Your task to perform on an android device: Is it going to rain today? Image 0: 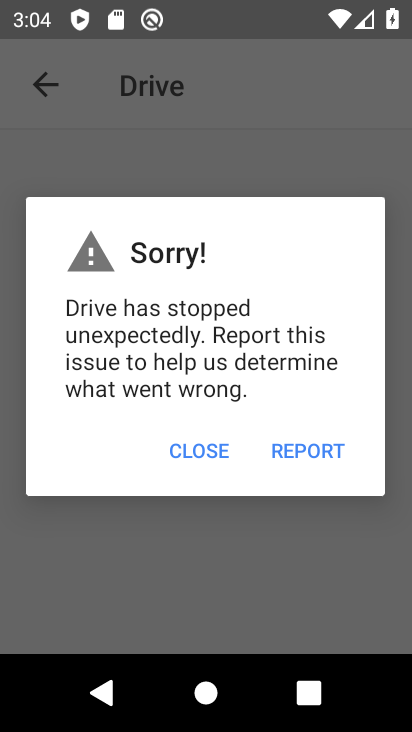
Step 0: press home button
Your task to perform on an android device: Is it going to rain today? Image 1: 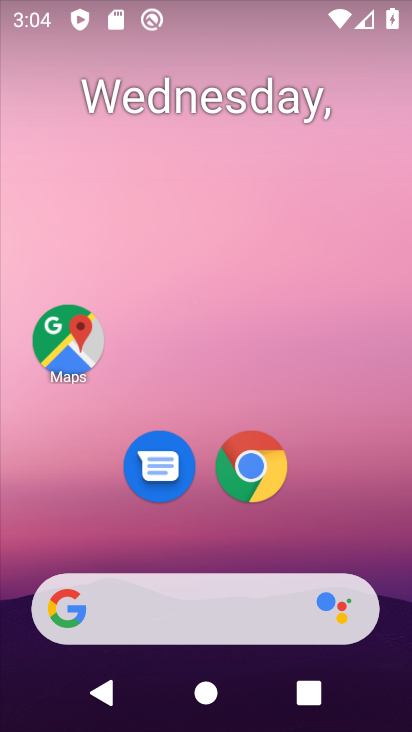
Step 1: drag from (9, 143) to (410, 208)
Your task to perform on an android device: Is it going to rain today? Image 2: 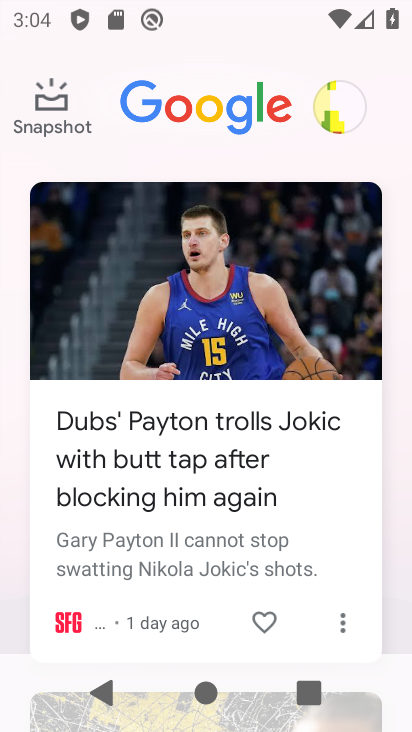
Step 2: drag from (217, 145) to (212, 333)
Your task to perform on an android device: Is it going to rain today? Image 3: 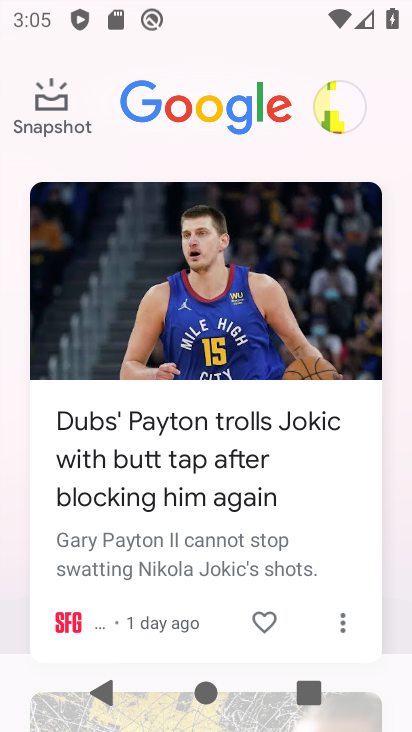
Step 3: press back button
Your task to perform on an android device: Is it going to rain today? Image 4: 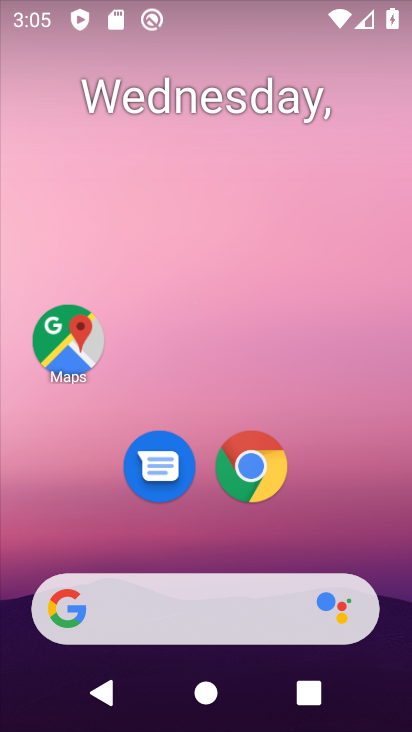
Step 4: click (185, 599)
Your task to perform on an android device: Is it going to rain today? Image 5: 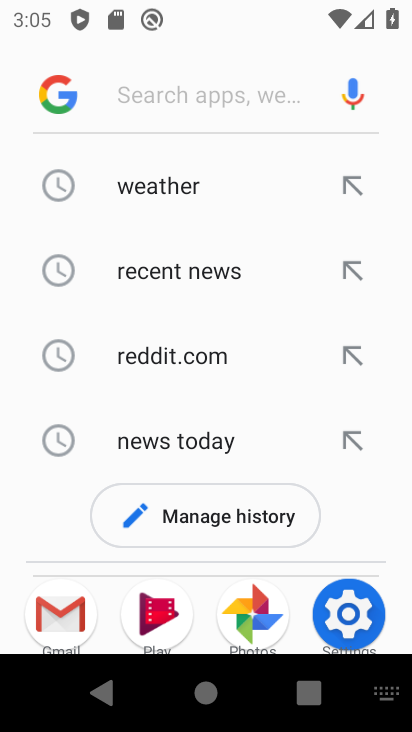
Step 5: click (159, 177)
Your task to perform on an android device: Is it going to rain today? Image 6: 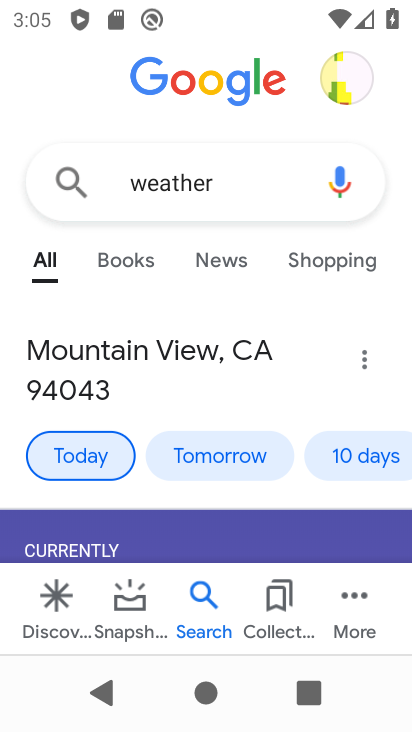
Step 6: task complete